Your task to perform on an android device: Do I have any events today? Image 0: 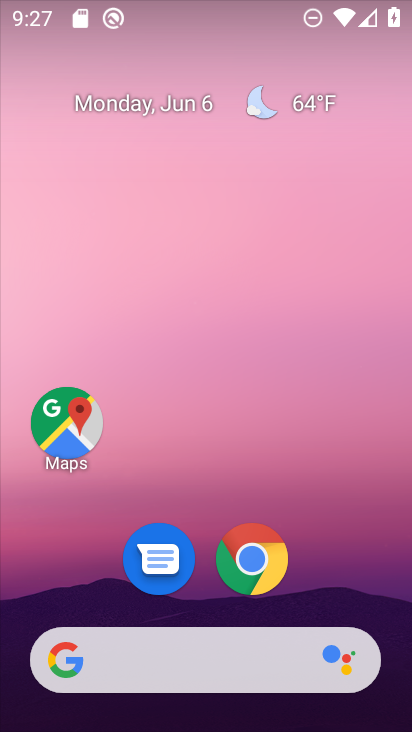
Step 0: drag from (238, 723) to (218, 91)
Your task to perform on an android device: Do I have any events today? Image 1: 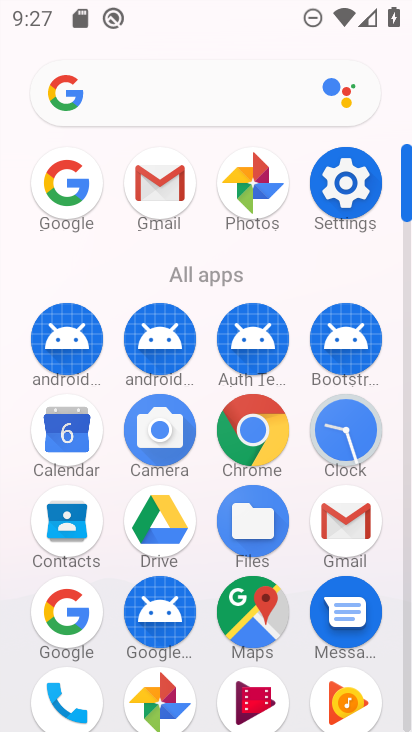
Step 1: click (57, 444)
Your task to perform on an android device: Do I have any events today? Image 2: 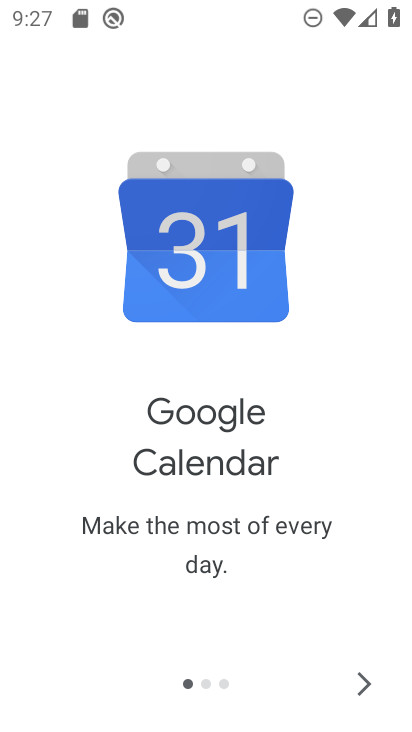
Step 2: click (367, 677)
Your task to perform on an android device: Do I have any events today? Image 3: 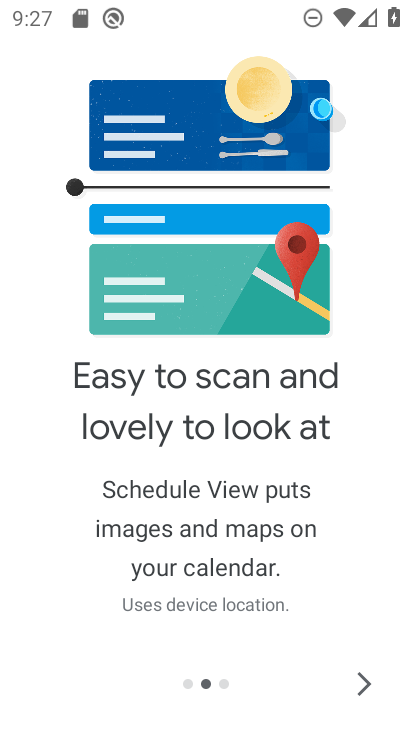
Step 3: click (366, 676)
Your task to perform on an android device: Do I have any events today? Image 4: 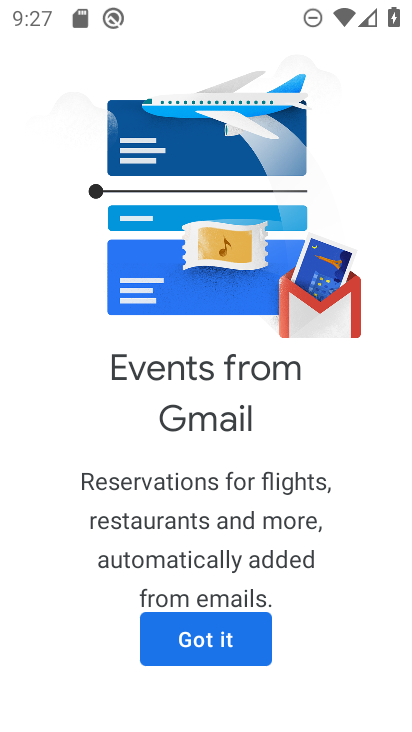
Step 4: click (206, 642)
Your task to perform on an android device: Do I have any events today? Image 5: 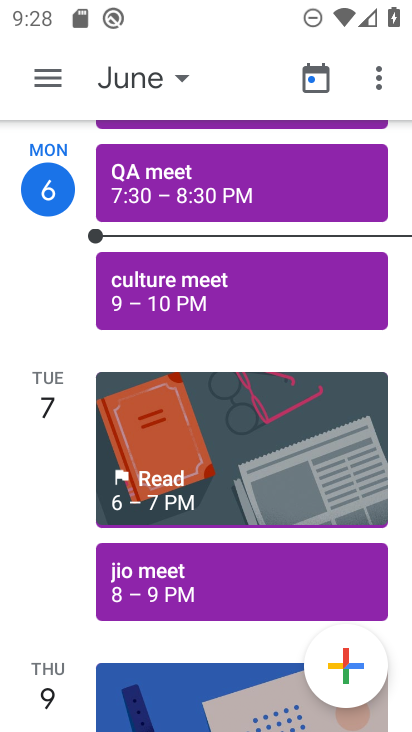
Step 5: click (41, 79)
Your task to perform on an android device: Do I have any events today? Image 6: 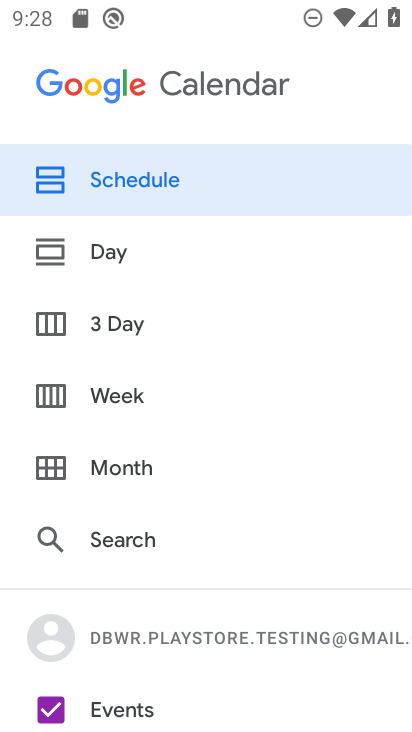
Step 6: drag from (200, 691) to (196, 394)
Your task to perform on an android device: Do I have any events today? Image 7: 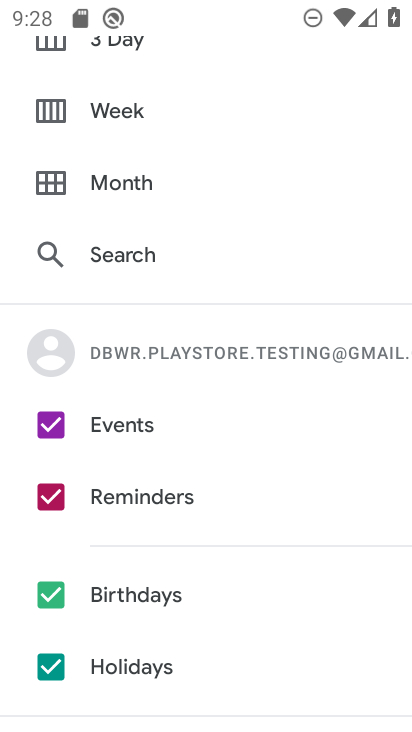
Step 7: click (52, 669)
Your task to perform on an android device: Do I have any events today? Image 8: 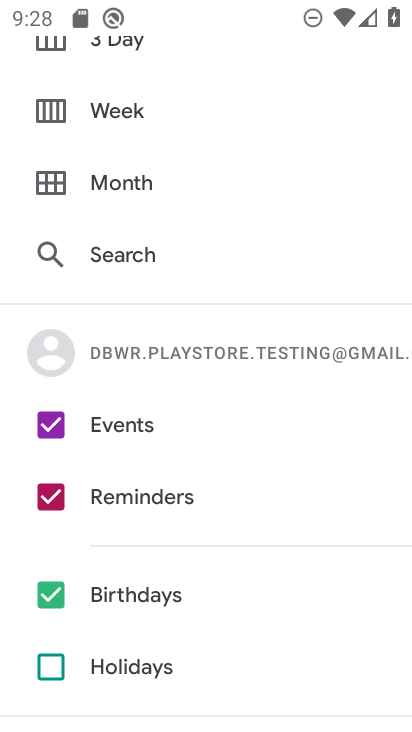
Step 8: click (55, 590)
Your task to perform on an android device: Do I have any events today? Image 9: 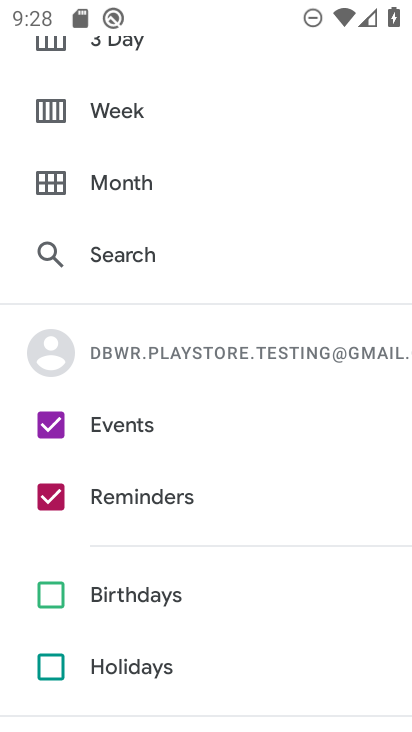
Step 9: click (59, 493)
Your task to perform on an android device: Do I have any events today? Image 10: 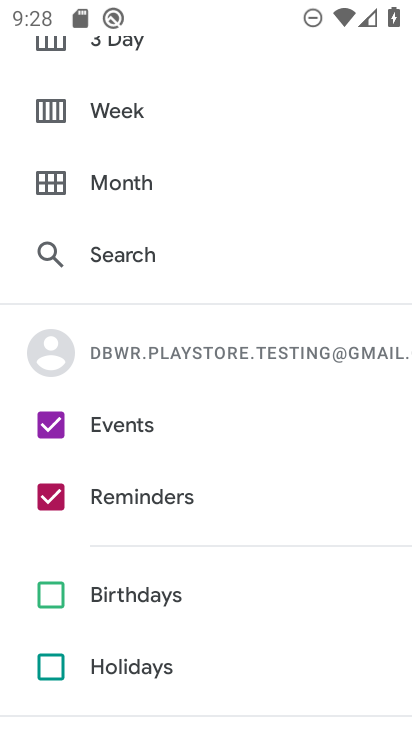
Step 10: click (50, 495)
Your task to perform on an android device: Do I have any events today? Image 11: 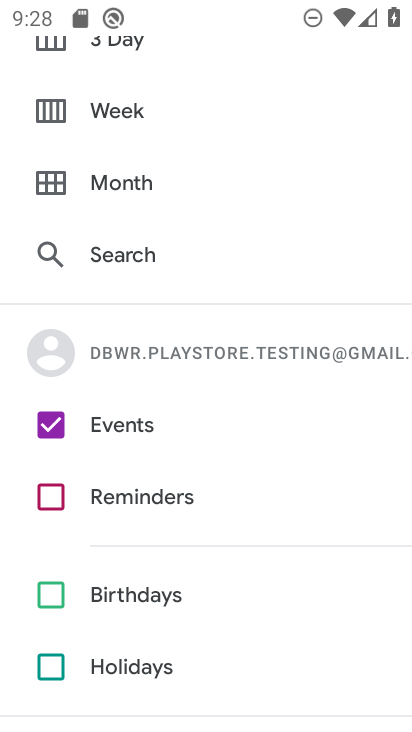
Step 11: drag from (250, 687) to (244, 402)
Your task to perform on an android device: Do I have any events today? Image 12: 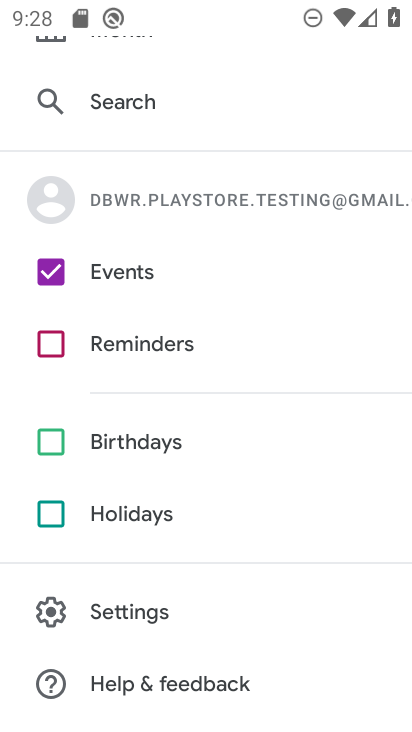
Step 12: drag from (291, 137) to (280, 631)
Your task to perform on an android device: Do I have any events today? Image 13: 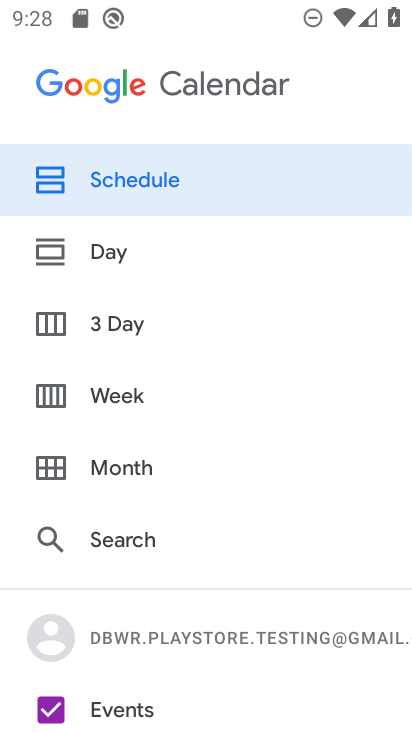
Step 13: click (158, 171)
Your task to perform on an android device: Do I have any events today? Image 14: 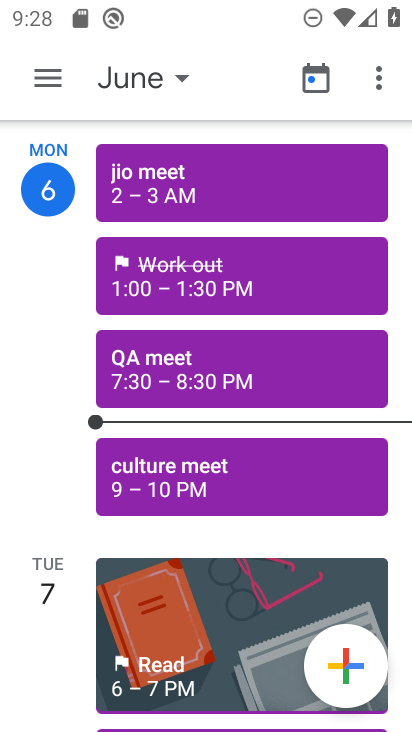
Step 14: task complete